Your task to perform on an android device: show emergency info Image 0: 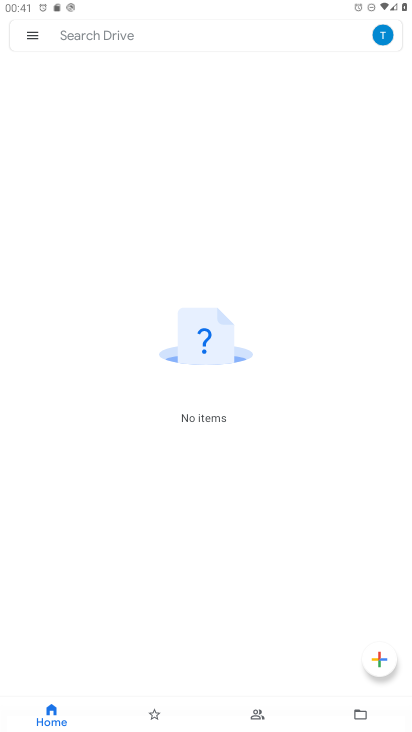
Step 0: press home button
Your task to perform on an android device: show emergency info Image 1: 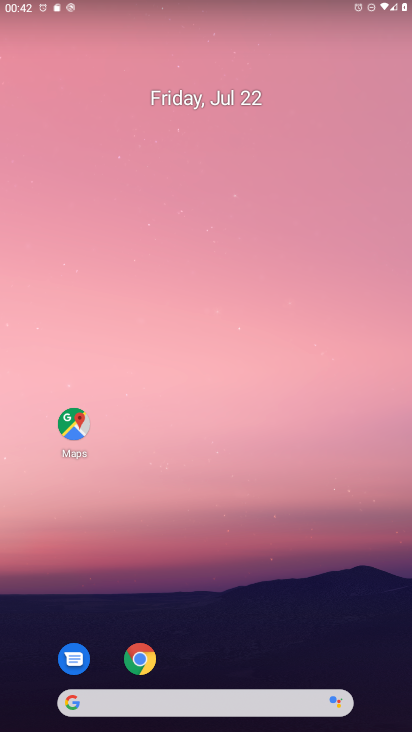
Step 1: drag from (248, 699) to (296, 140)
Your task to perform on an android device: show emergency info Image 2: 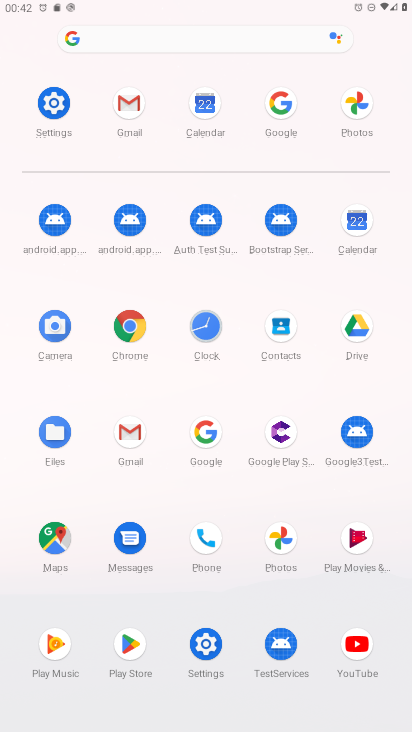
Step 2: click (206, 643)
Your task to perform on an android device: show emergency info Image 3: 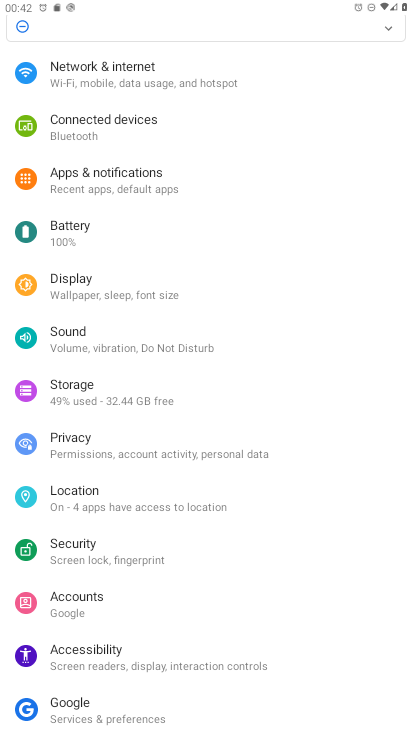
Step 3: drag from (97, 673) to (175, 573)
Your task to perform on an android device: show emergency info Image 4: 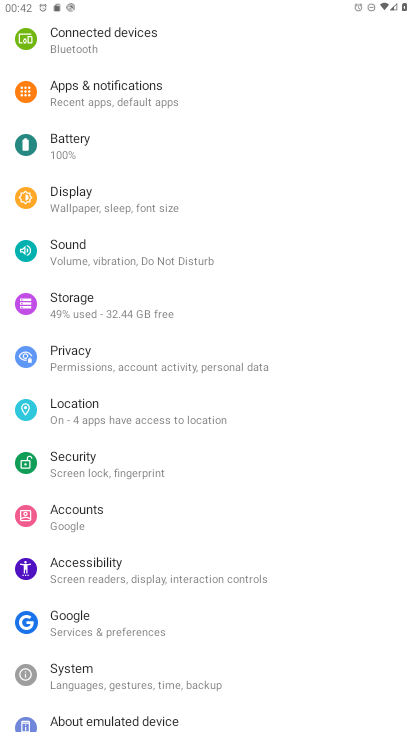
Step 4: drag from (139, 655) to (246, 465)
Your task to perform on an android device: show emergency info Image 5: 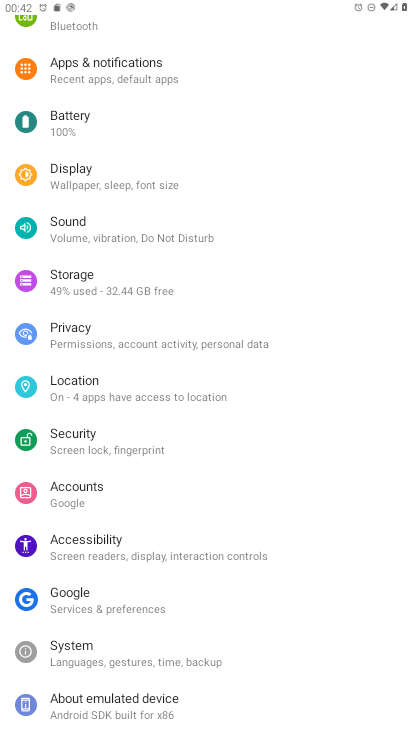
Step 5: click (94, 699)
Your task to perform on an android device: show emergency info Image 6: 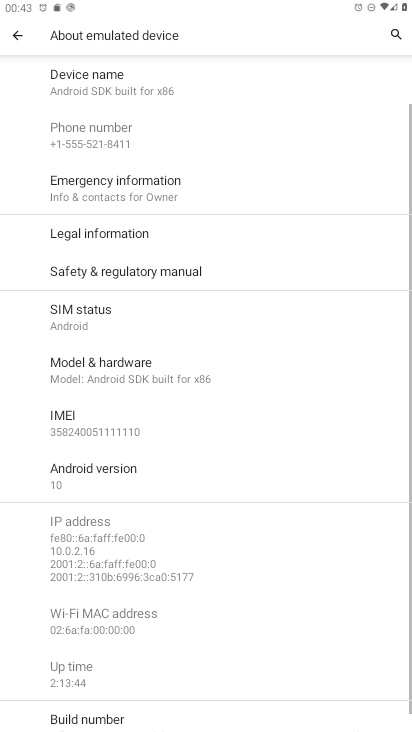
Step 6: click (102, 182)
Your task to perform on an android device: show emergency info Image 7: 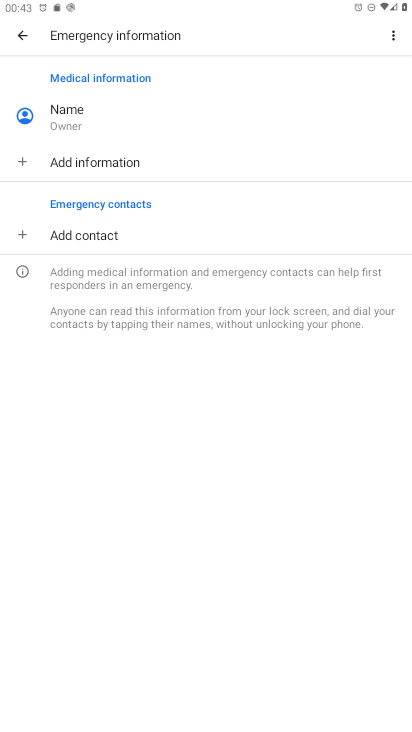
Step 7: task complete